Your task to perform on an android device: Open Yahoo.com Image 0: 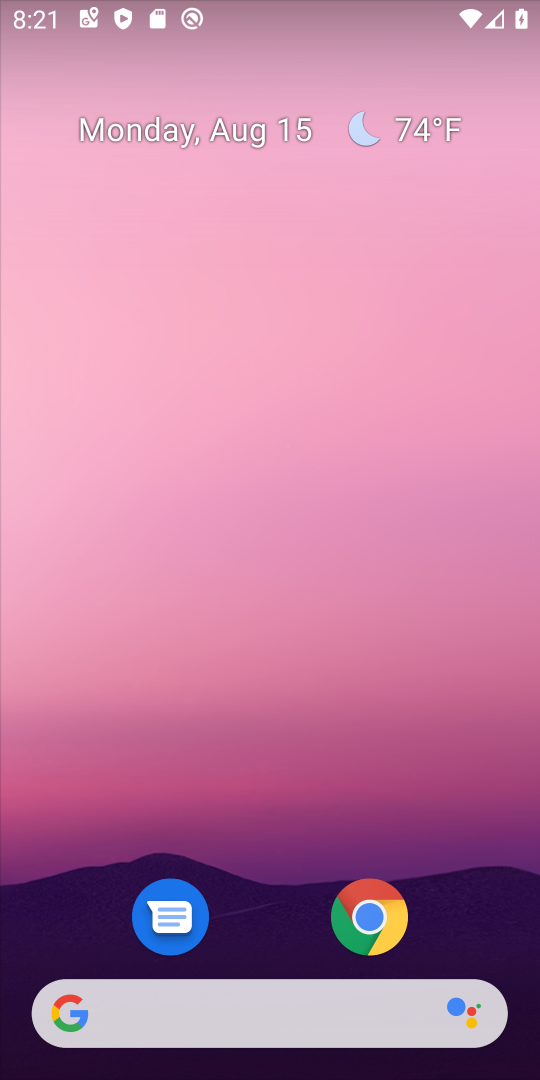
Step 0: drag from (278, 890) to (255, 73)
Your task to perform on an android device: Open Yahoo.com Image 1: 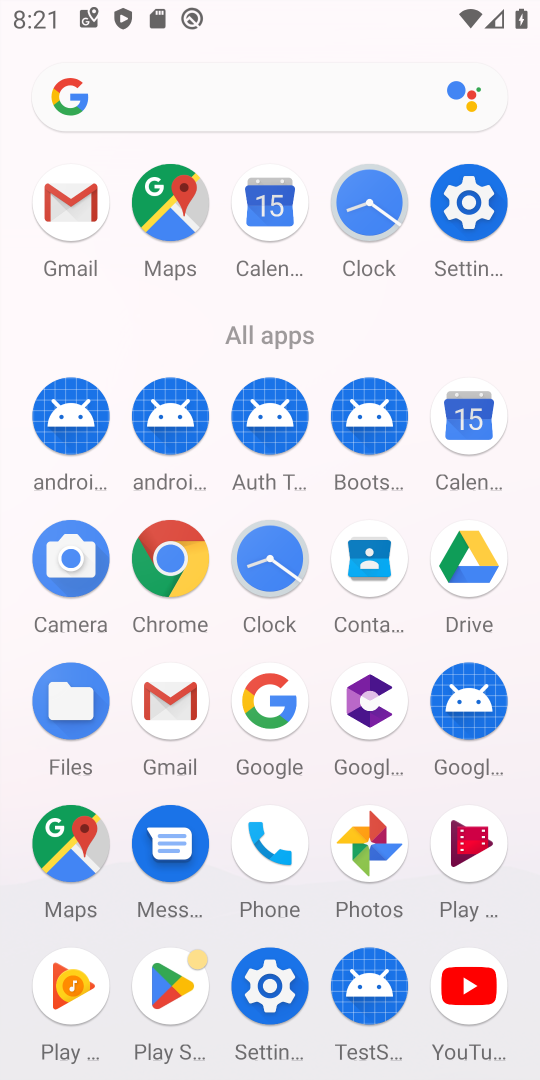
Step 1: press back button
Your task to perform on an android device: Open Yahoo.com Image 2: 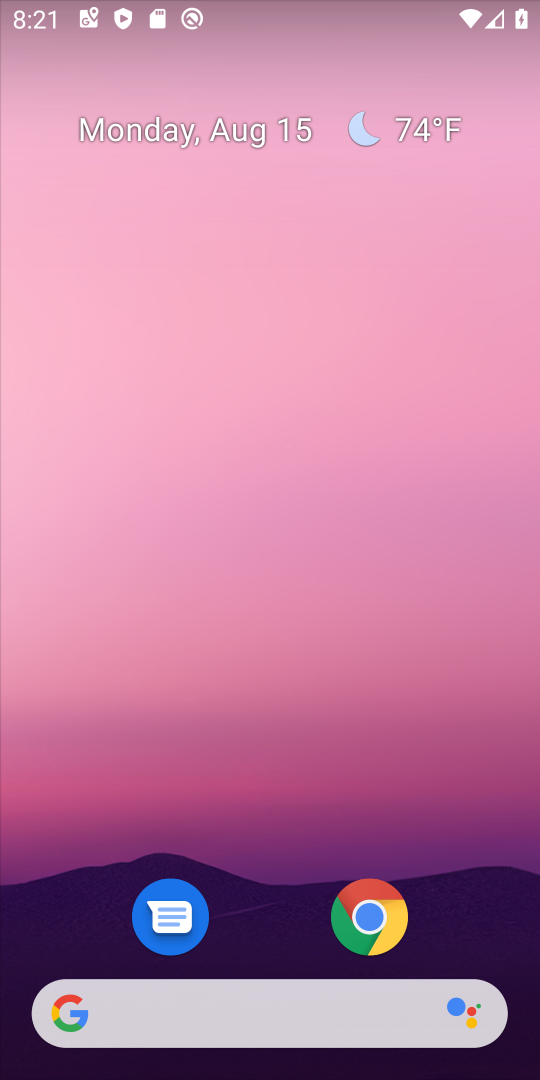
Step 2: click (303, 1012)
Your task to perform on an android device: Open Yahoo.com Image 3: 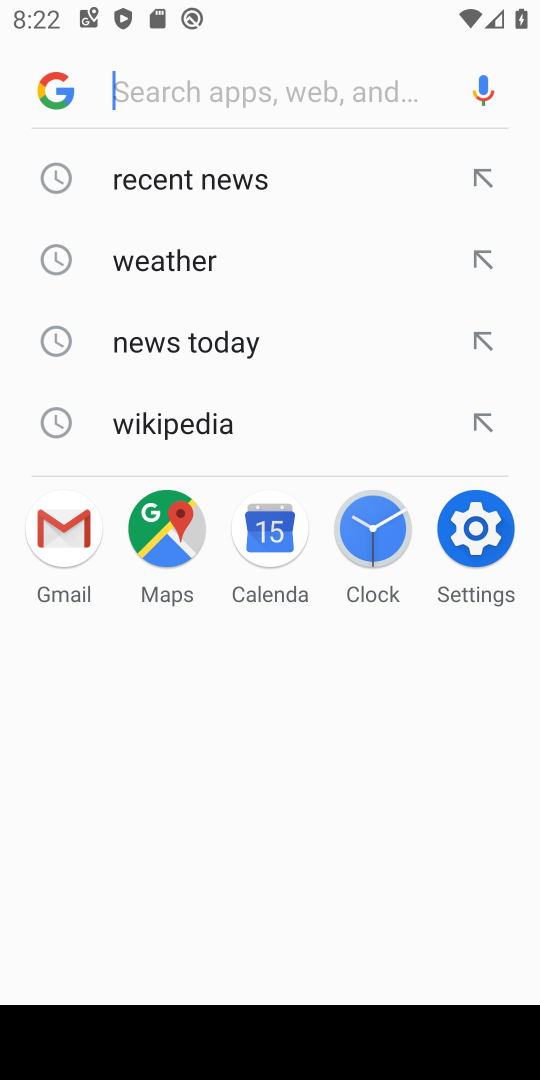
Step 3: type "yahoo.com"
Your task to perform on an android device: Open Yahoo.com Image 4: 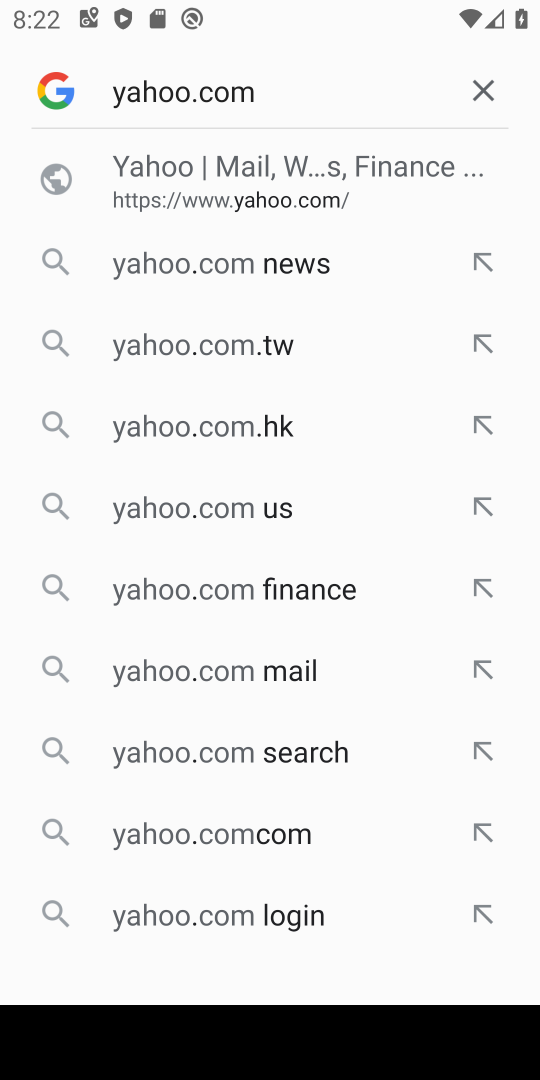
Step 4: click (264, 164)
Your task to perform on an android device: Open Yahoo.com Image 5: 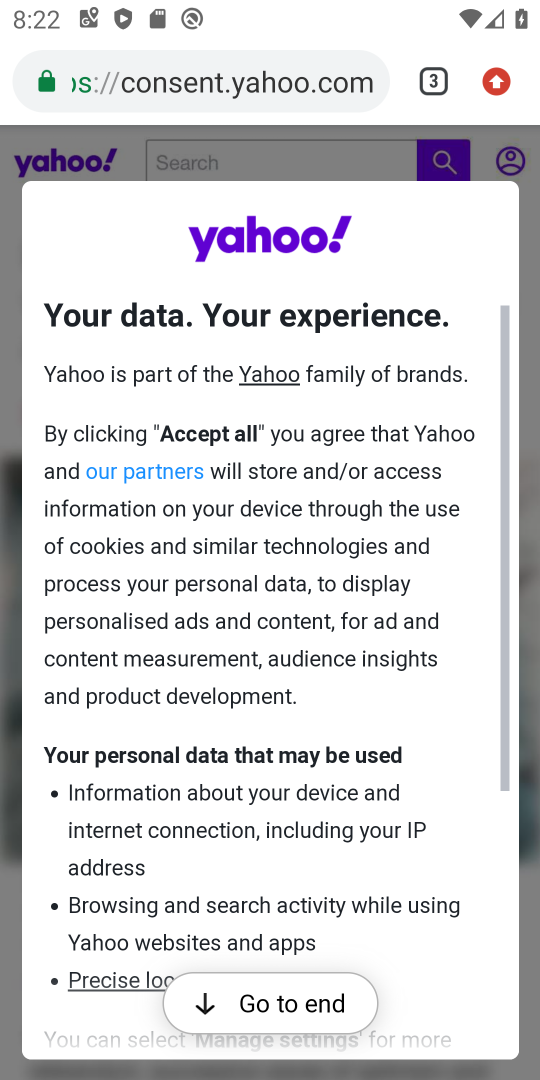
Step 5: click (321, 993)
Your task to perform on an android device: Open Yahoo.com Image 6: 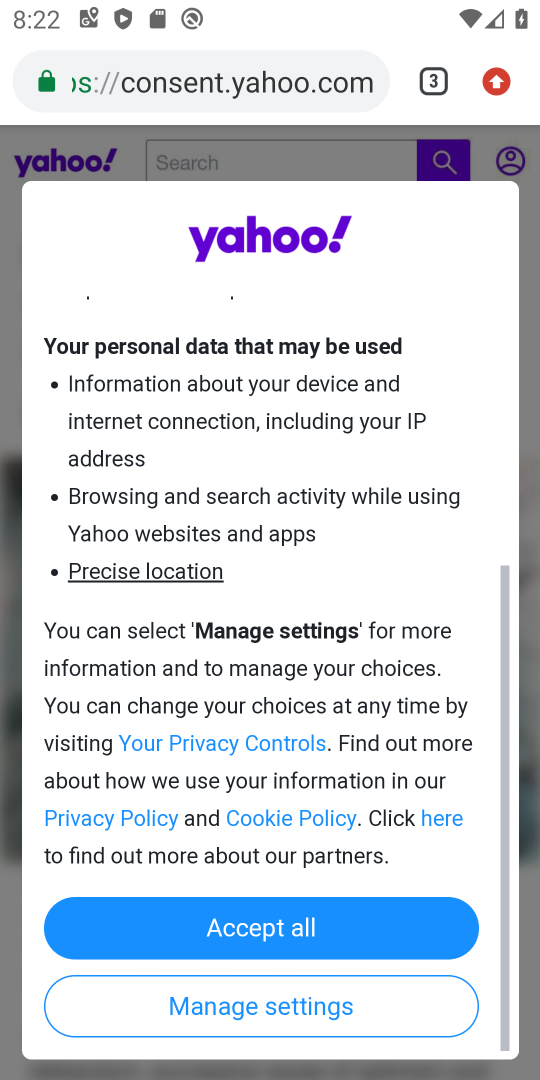
Step 6: click (352, 928)
Your task to perform on an android device: Open Yahoo.com Image 7: 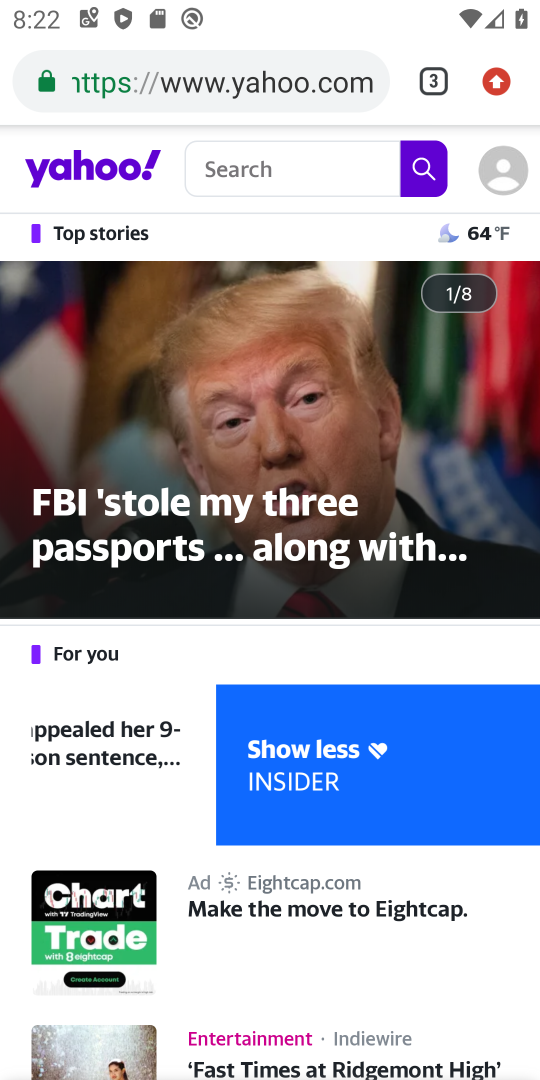
Step 7: task complete